Your task to perform on an android device: Open Google Maps and go to "Timeline" Image 0: 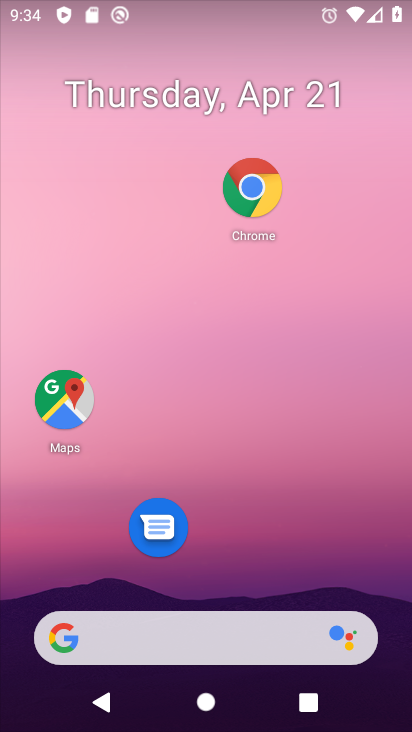
Step 0: drag from (223, 668) to (223, 7)
Your task to perform on an android device: Open Google Maps and go to "Timeline" Image 1: 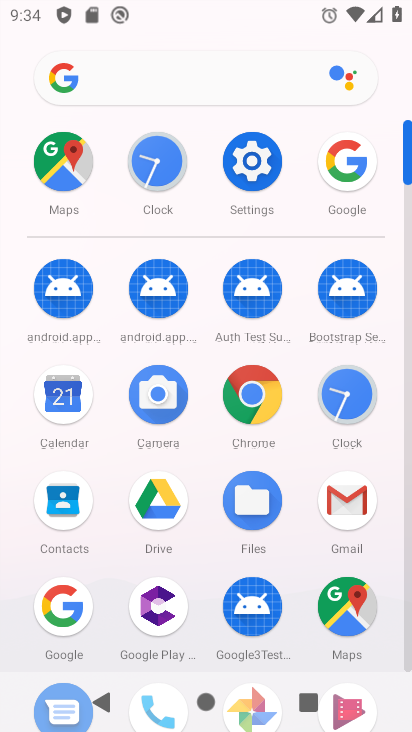
Step 1: click (353, 619)
Your task to perform on an android device: Open Google Maps and go to "Timeline" Image 2: 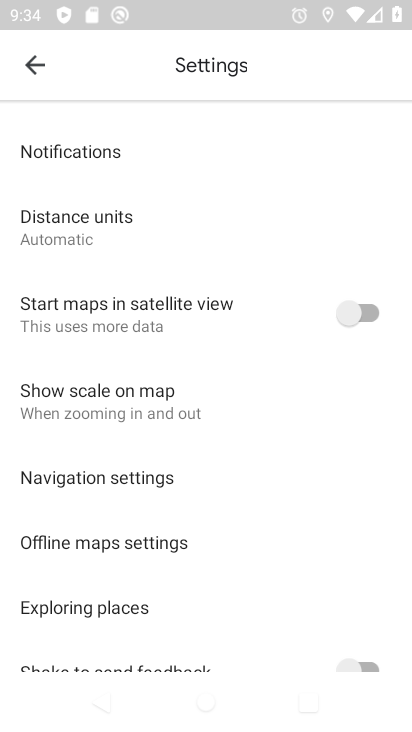
Step 2: click (47, 70)
Your task to perform on an android device: Open Google Maps and go to "Timeline" Image 3: 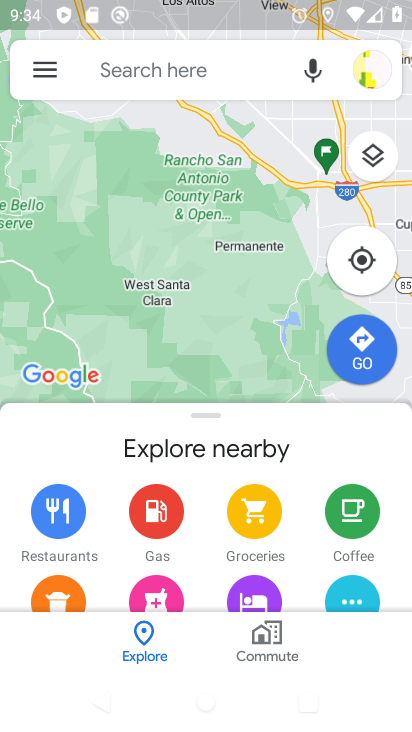
Step 3: click (44, 75)
Your task to perform on an android device: Open Google Maps and go to "Timeline" Image 4: 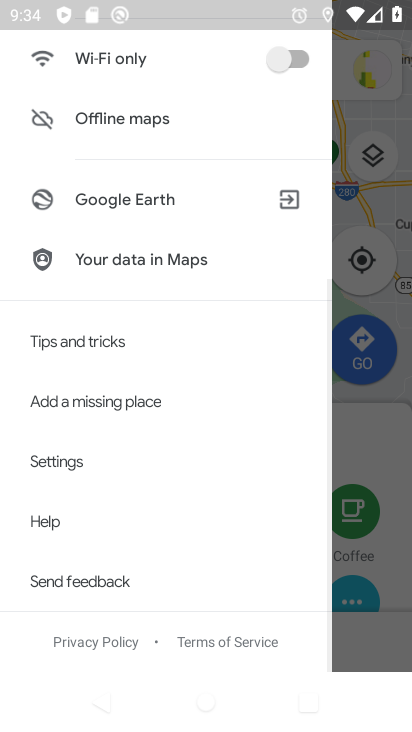
Step 4: drag from (120, 253) to (61, 613)
Your task to perform on an android device: Open Google Maps and go to "Timeline" Image 5: 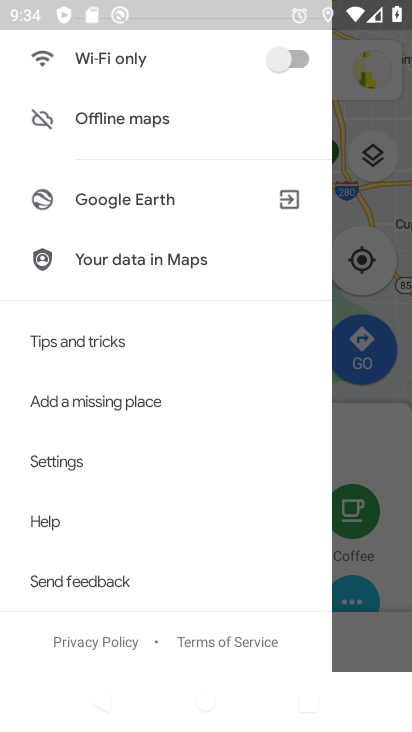
Step 5: drag from (112, 298) to (69, 693)
Your task to perform on an android device: Open Google Maps and go to "Timeline" Image 6: 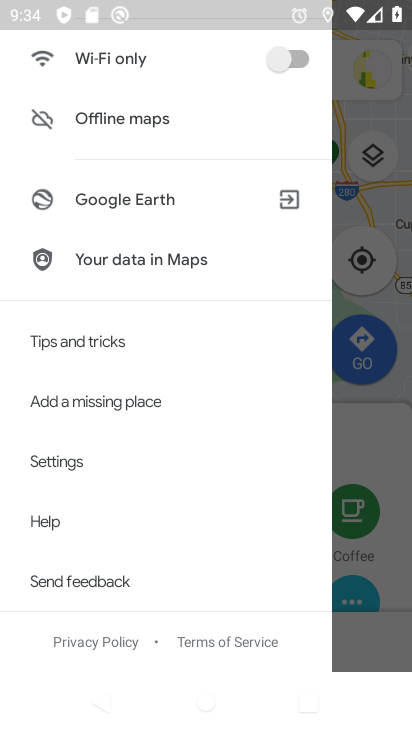
Step 6: drag from (163, 208) to (190, 730)
Your task to perform on an android device: Open Google Maps and go to "Timeline" Image 7: 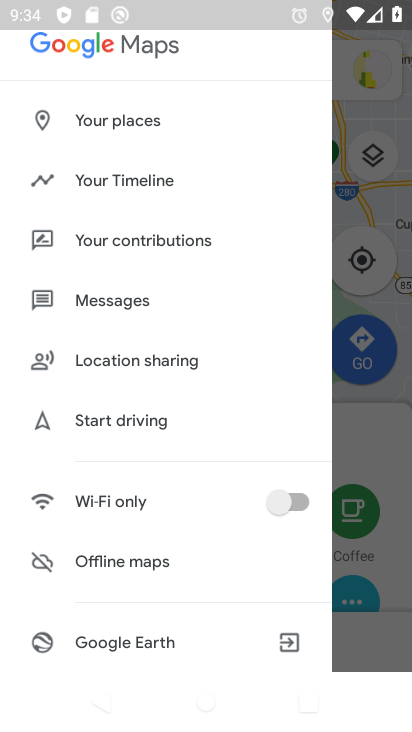
Step 7: click (192, 189)
Your task to perform on an android device: Open Google Maps and go to "Timeline" Image 8: 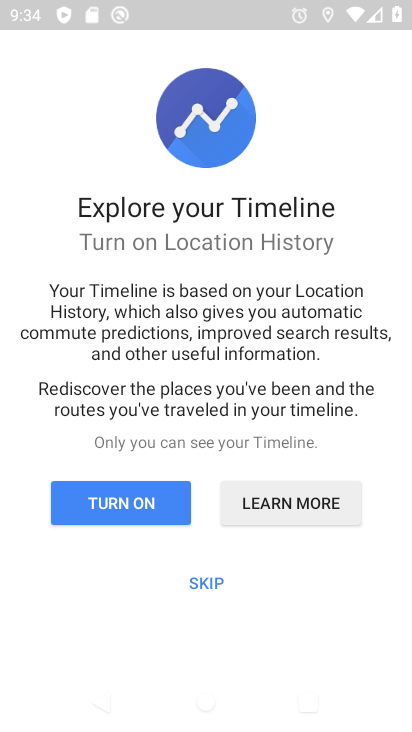
Step 8: click (212, 581)
Your task to perform on an android device: Open Google Maps and go to "Timeline" Image 9: 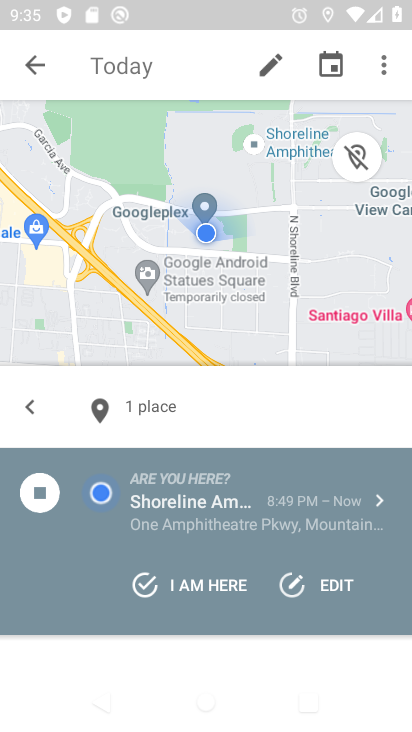
Step 9: task complete